Your task to perform on an android device: add a contact in the contacts app Image 0: 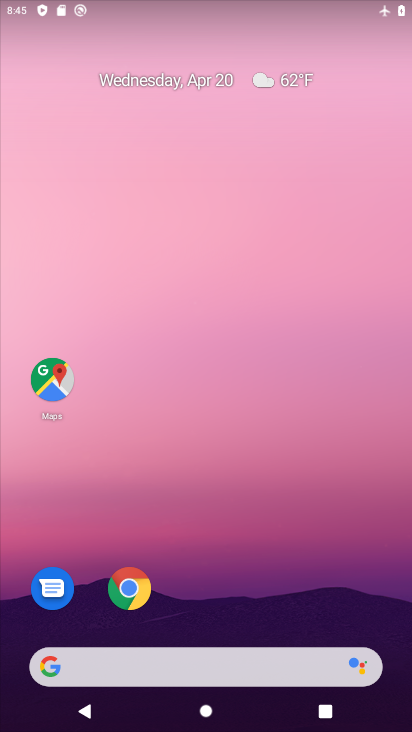
Step 0: drag from (314, 578) to (118, 0)
Your task to perform on an android device: add a contact in the contacts app Image 1: 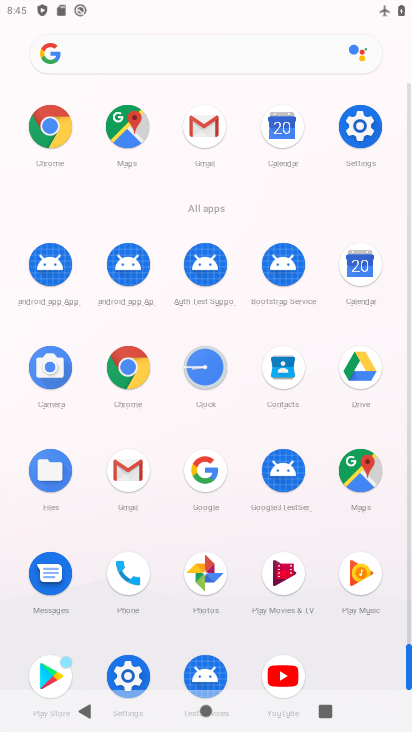
Step 1: drag from (14, 390) to (1, 193)
Your task to perform on an android device: add a contact in the contacts app Image 2: 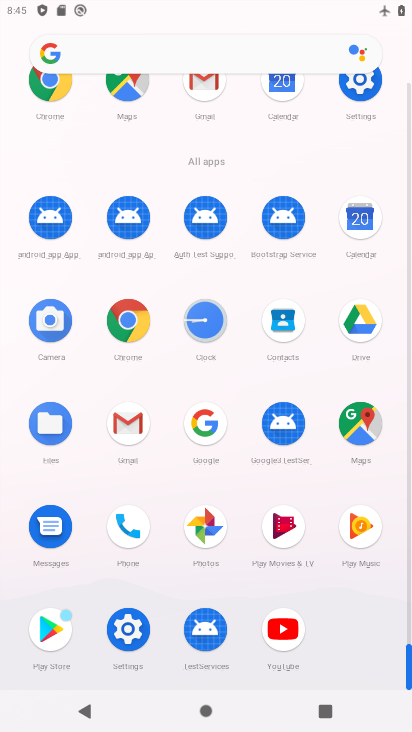
Step 2: click (286, 317)
Your task to perform on an android device: add a contact in the contacts app Image 3: 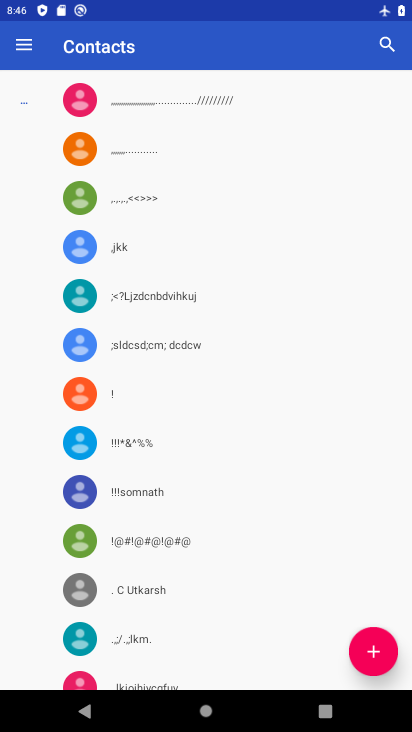
Step 3: click (380, 644)
Your task to perform on an android device: add a contact in the contacts app Image 4: 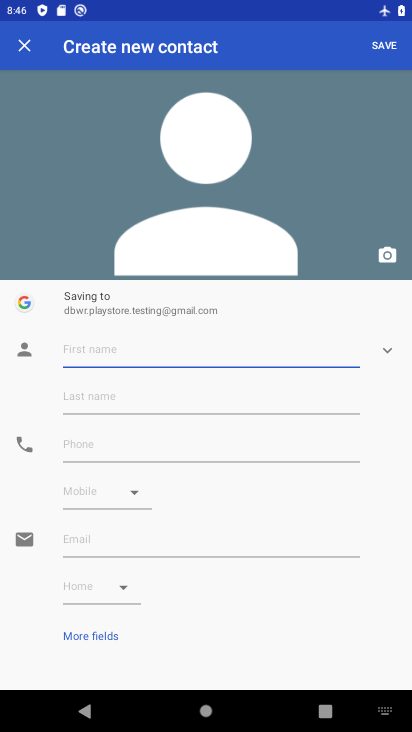
Step 4: type "Lkiuu"
Your task to perform on an android device: add a contact in the contacts app Image 5: 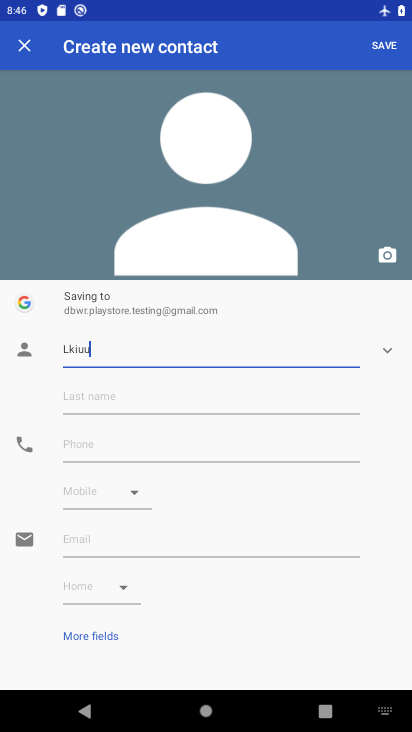
Step 5: click (101, 441)
Your task to perform on an android device: add a contact in the contacts app Image 6: 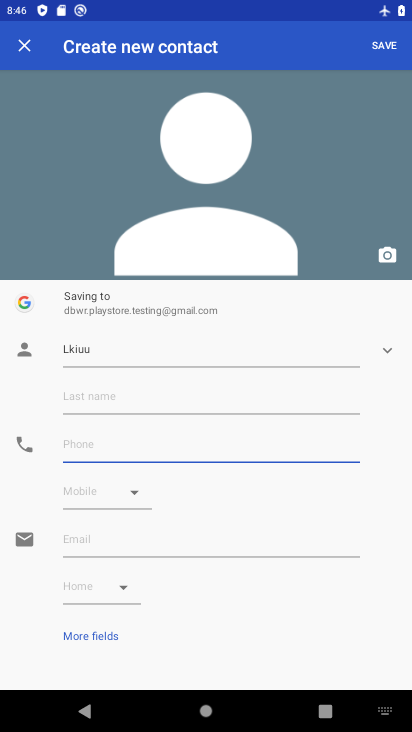
Step 6: type "98766546989678"
Your task to perform on an android device: add a contact in the contacts app Image 7: 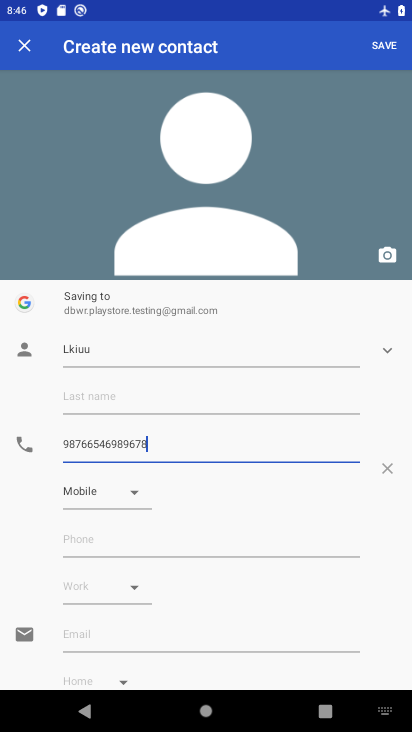
Step 7: type ""
Your task to perform on an android device: add a contact in the contacts app Image 8: 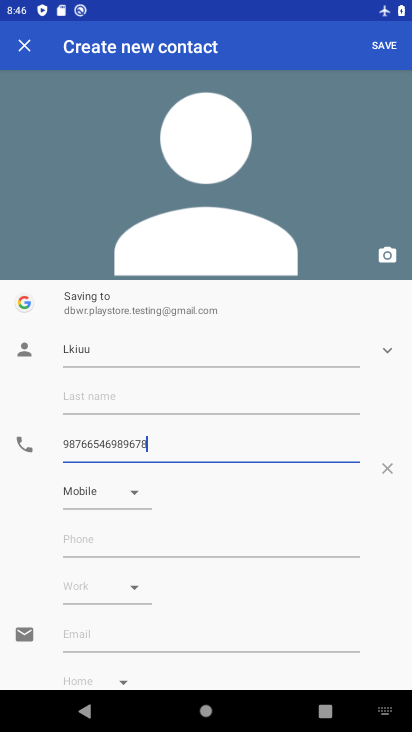
Step 8: click (397, 42)
Your task to perform on an android device: add a contact in the contacts app Image 9: 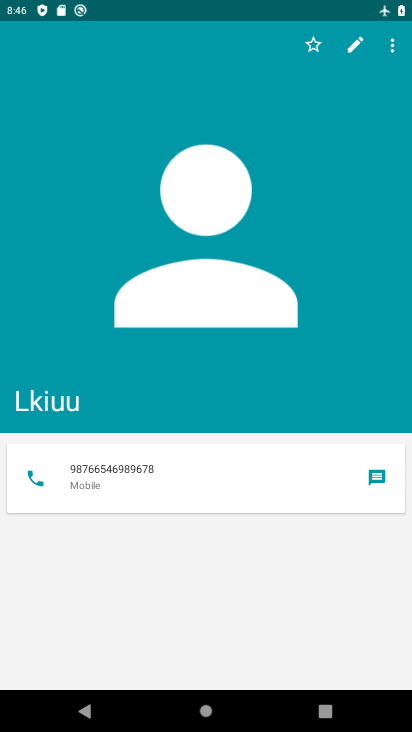
Step 9: task complete